Your task to perform on an android device: Is it going to rain tomorrow? Image 0: 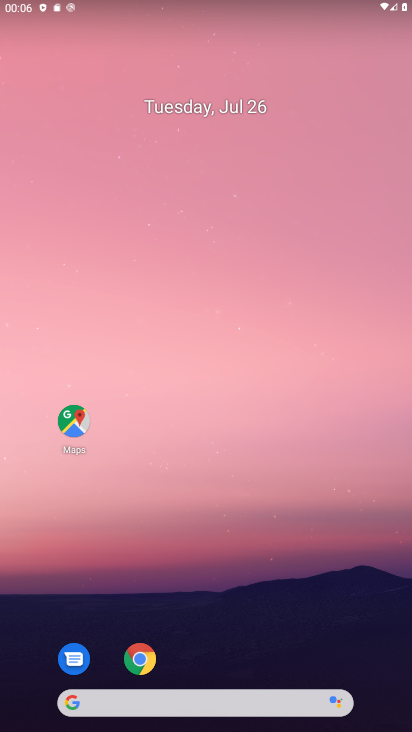
Step 0: press home button
Your task to perform on an android device: Is it going to rain tomorrow? Image 1: 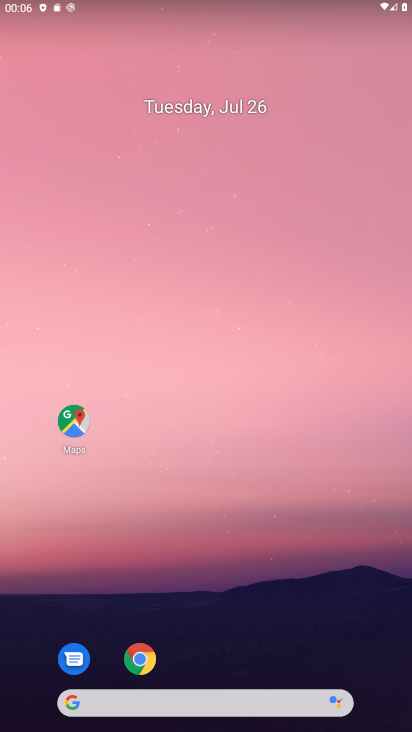
Step 1: click (149, 656)
Your task to perform on an android device: Is it going to rain tomorrow? Image 2: 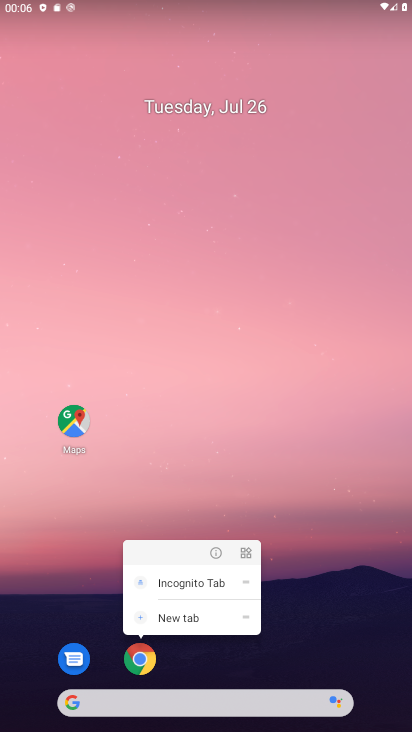
Step 2: click (144, 667)
Your task to perform on an android device: Is it going to rain tomorrow? Image 3: 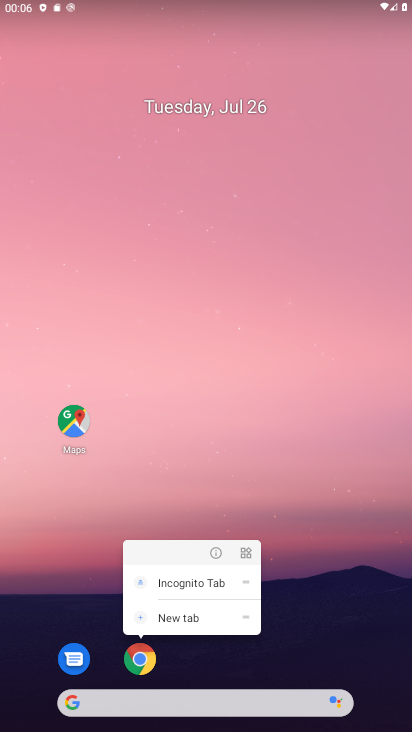
Step 3: click (153, 655)
Your task to perform on an android device: Is it going to rain tomorrow? Image 4: 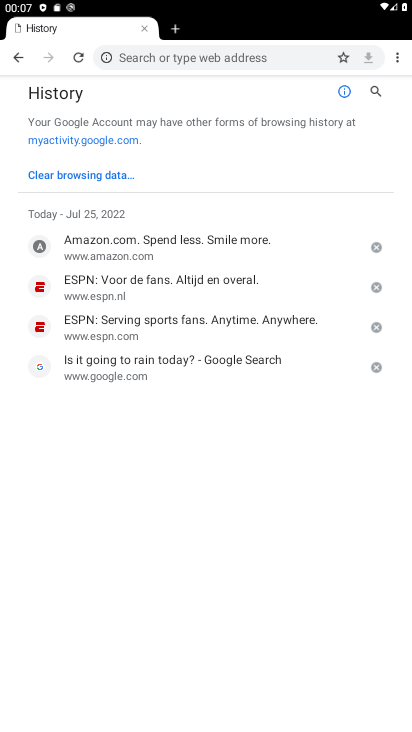
Step 4: click (202, 54)
Your task to perform on an android device: Is it going to rain tomorrow? Image 5: 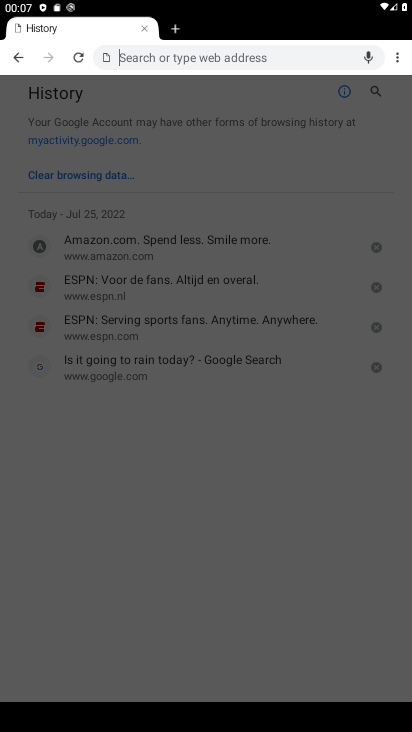
Step 5: type "Is it going to rain tomorrow?"
Your task to perform on an android device: Is it going to rain tomorrow? Image 6: 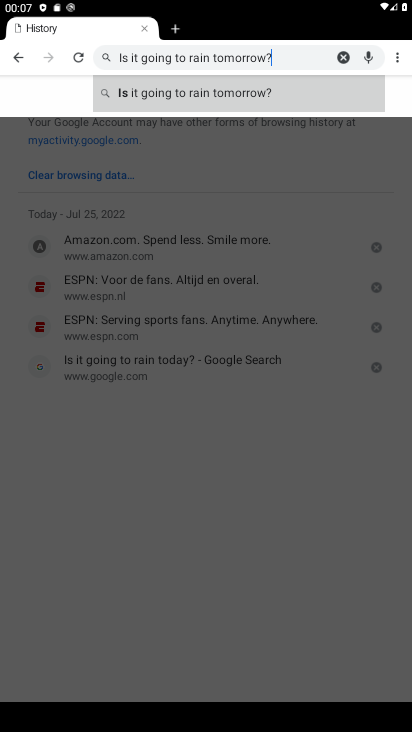
Step 6: type ""
Your task to perform on an android device: Is it going to rain tomorrow? Image 7: 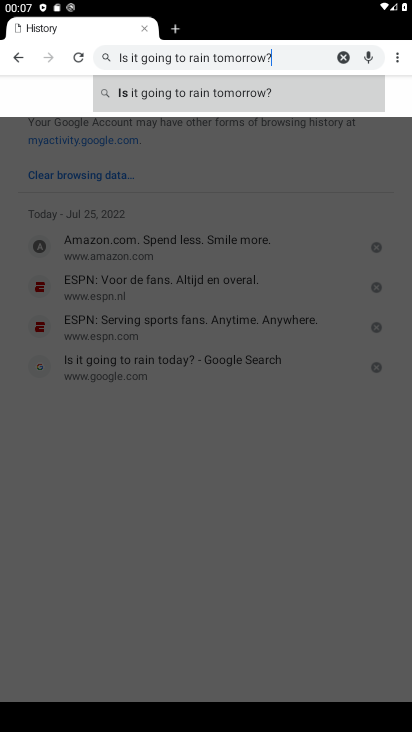
Step 7: click (175, 101)
Your task to perform on an android device: Is it going to rain tomorrow? Image 8: 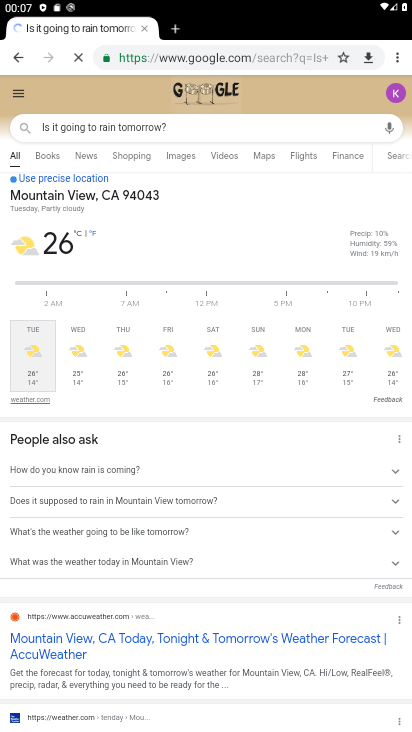
Step 8: task complete